Your task to perform on an android device: check storage Image 0: 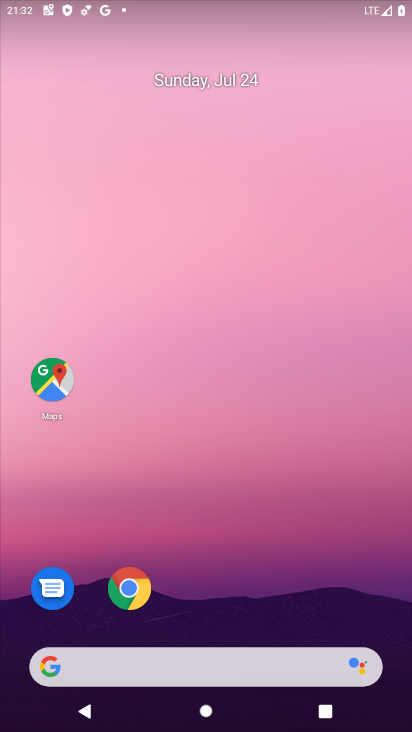
Step 0: drag from (223, 662) to (179, 197)
Your task to perform on an android device: check storage Image 1: 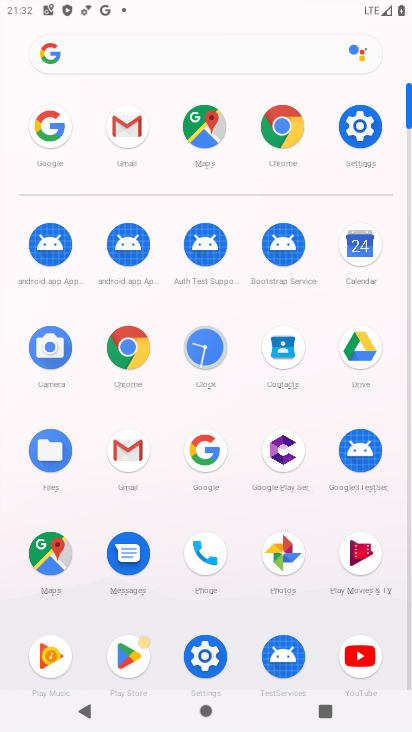
Step 1: click (373, 139)
Your task to perform on an android device: check storage Image 2: 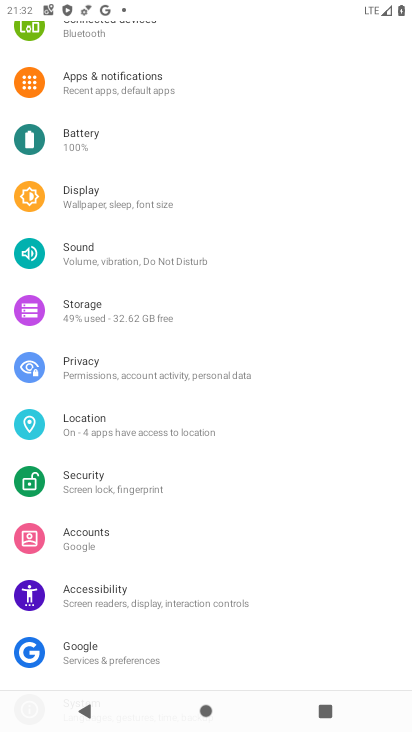
Step 2: click (112, 327)
Your task to perform on an android device: check storage Image 3: 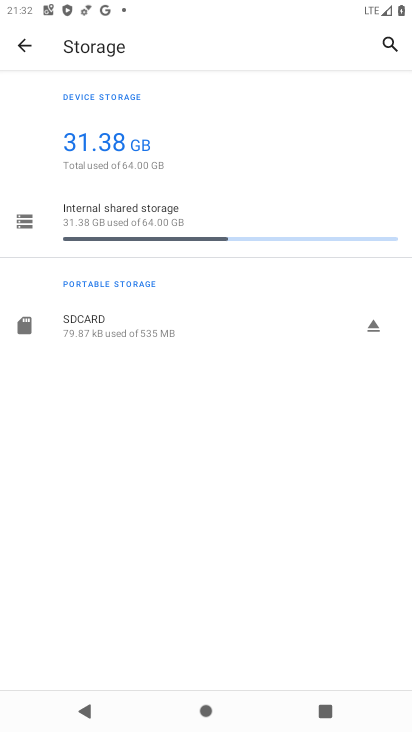
Step 3: task complete